Your task to perform on an android device: toggle priority inbox in the gmail app Image 0: 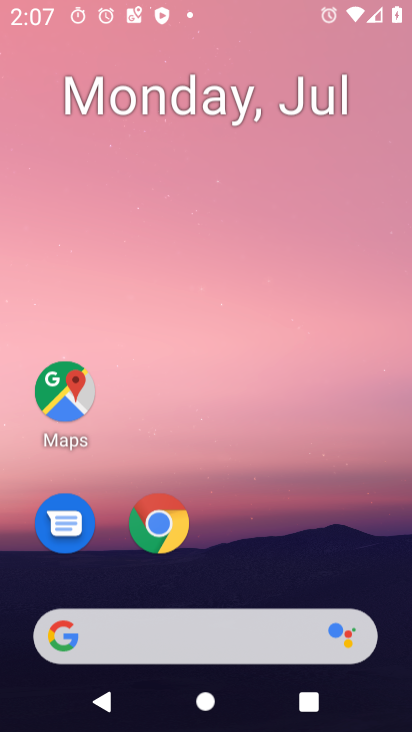
Step 0: press home button
Your task to perform on an android device: toggle priority inbox in the gmail app Image 1: 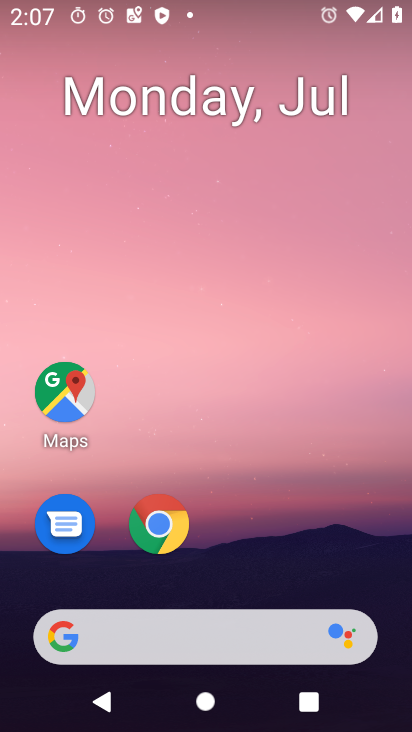
Step 1: drag from (272, 583) to (274, 103)
Your task to perform on an android device: toggle priority inbox in the gmail app Image 2: 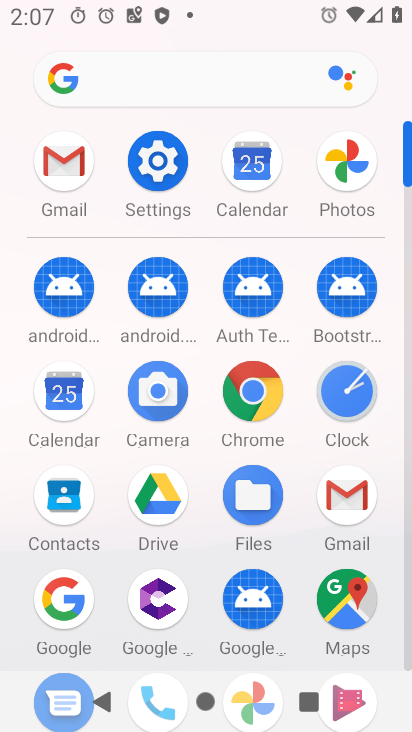
Step 2: click (53, 156)
Your task to perform on an android device: toggle priority inbox in the gmail app Image 3: 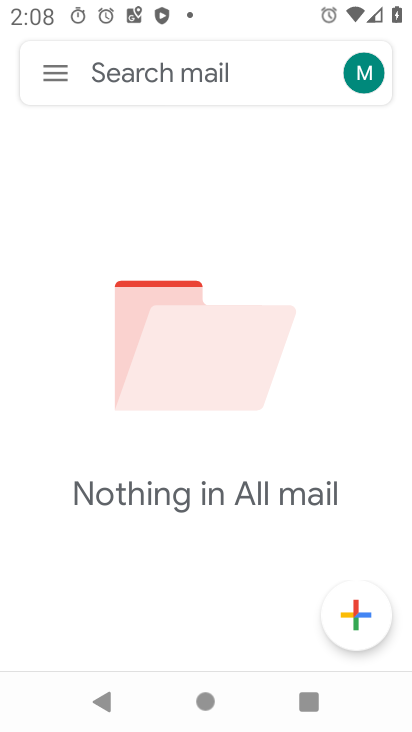
Step 3: click (52, 79)
Your task to perform on an android device: toggle priority inbox in the gmail app Image 4: 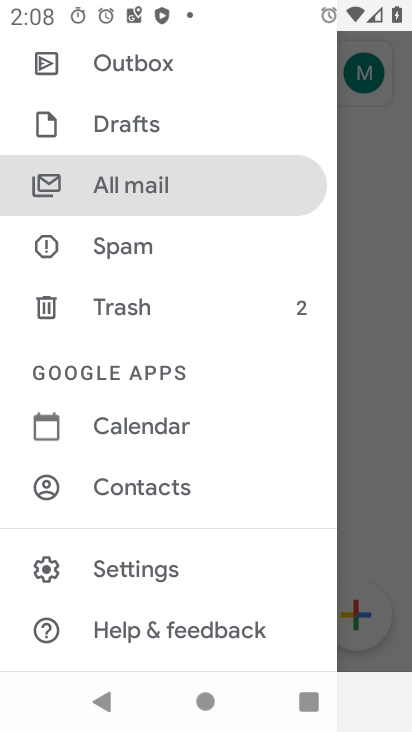
Step 4: click (145, 571)
Your task to perform on an android device: toggle priority inbox in the gmail app Image 5: 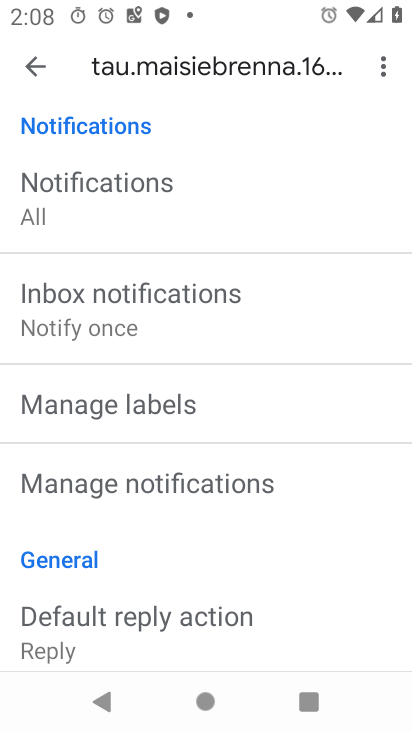
Step 5: drag from (263, 161) to (293, 614)
Your task to perform on an android device: toggle priority inbox in the gmail app Image 6: 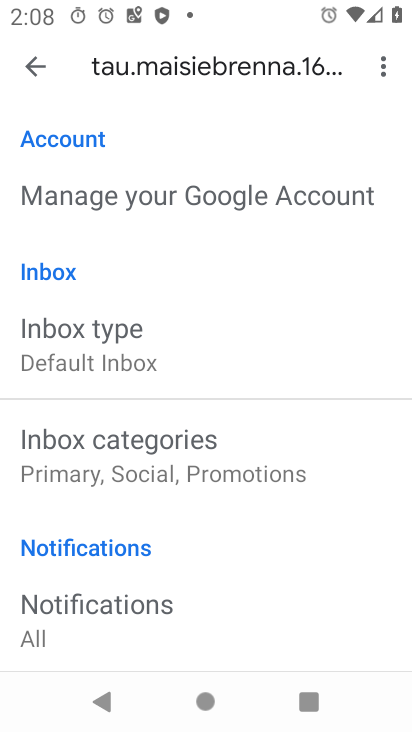
Step 6: click (100, 349)
Your task to perform on an android device: toggle priority inbox in the gmail app Image 7: 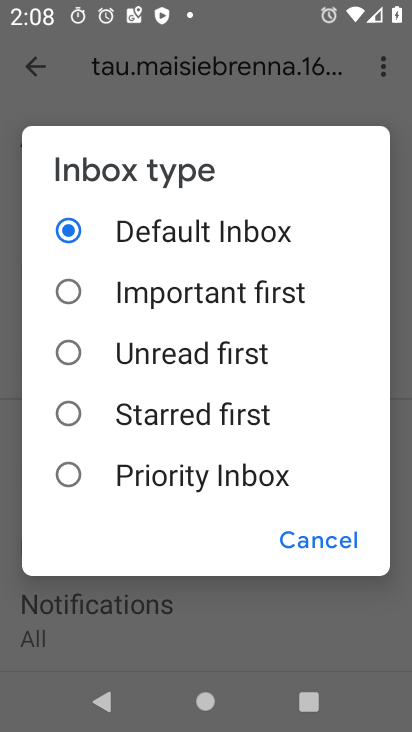
Step 7: click (73, 471)
Your task to perform on an android device: toggle priority inbox in the gmail app Image 8: 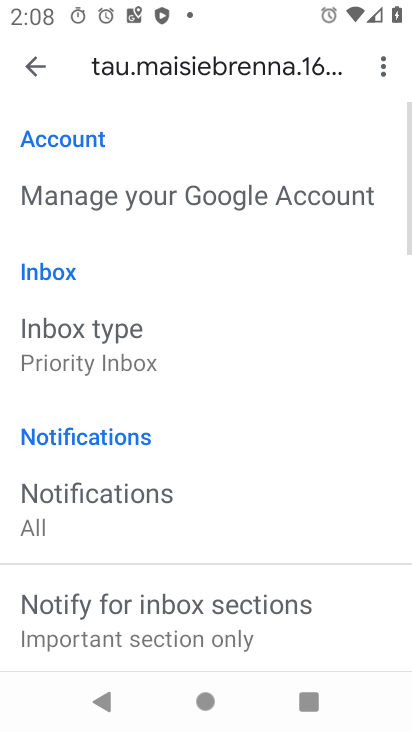
Step 8: task complete